Your task to perform on an android device: turn off wifi Image 0: 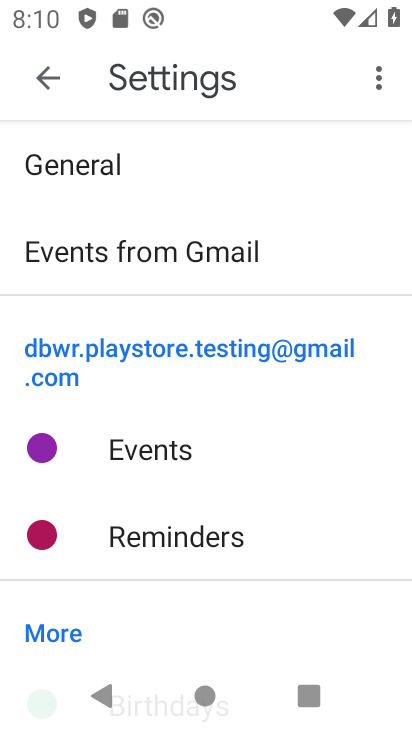
Step 0: press home button
Your task to perform on an android device: turn off wifi Image 1: 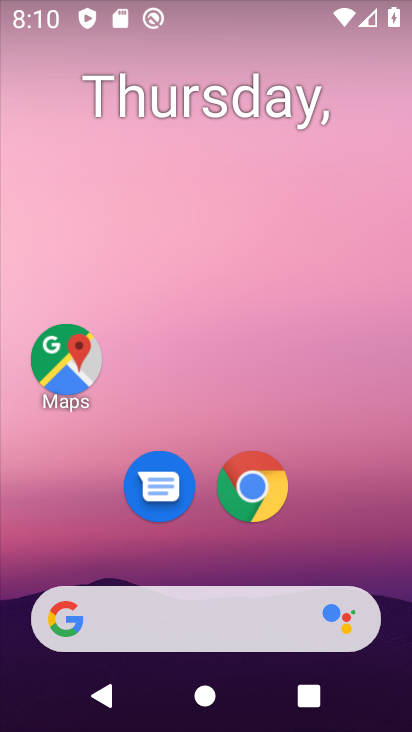
Step 1: drag from (160, 574) to (272, 0)
Your task to perform on an android device: turn off wifi Image 2: 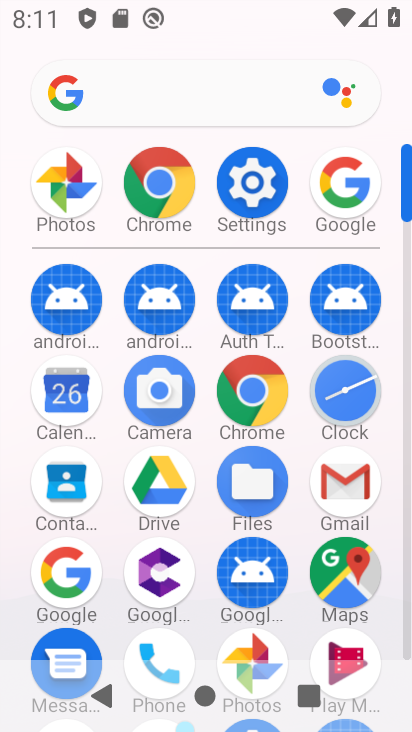
Step 2: click (260, 199)
Your task to perform on an android device: turn off wifi Image 3: 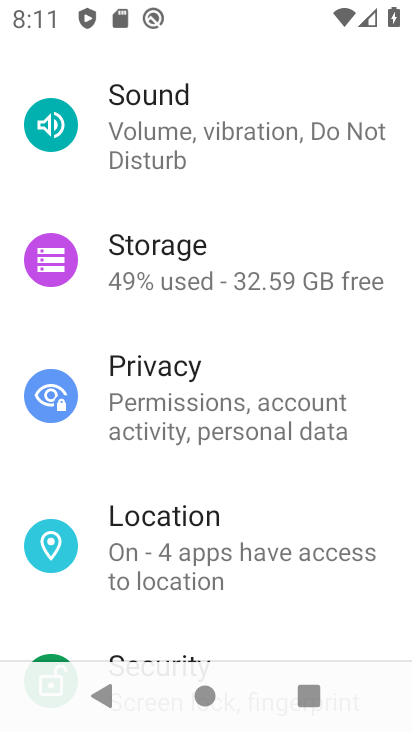
Step 3: drag from (247, 204) to (148, 716)
Your task to perform on an android device: turn off wifi Image 4: 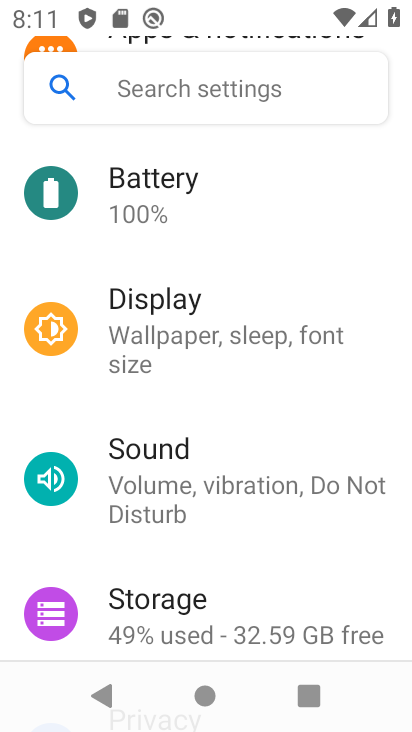
Step 4: drag from (148, 324) to (148, 729)
Your task to perform on an android device: turn off wifi Image 5: 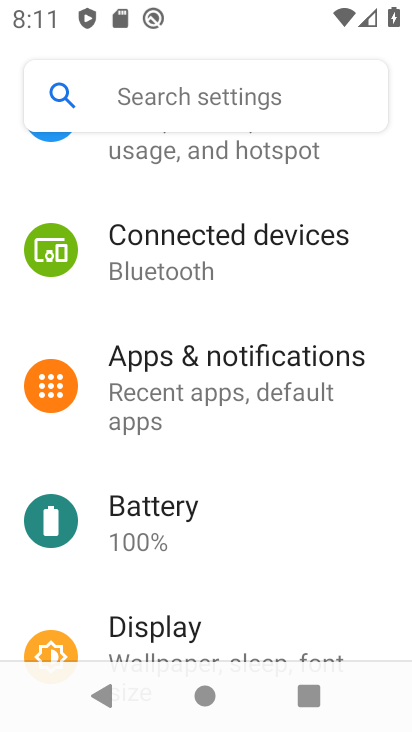
Step 5: drag from (189, 313) to (137, 730)
Your task to perform on an android device: turn off wifi Image 6: 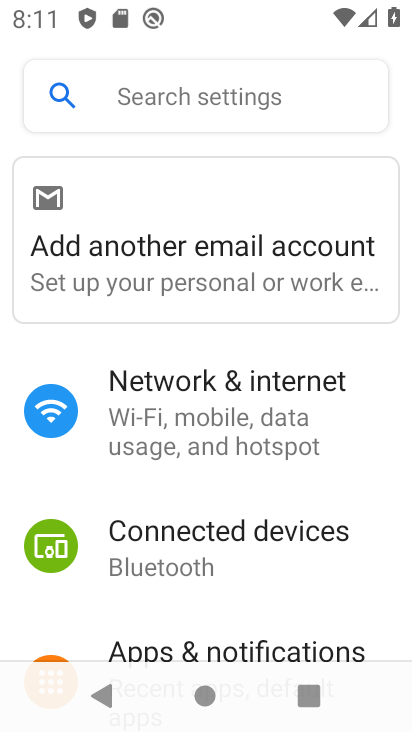
Step 6: click (297, 378)
Your task to perform on an android device: turn off wifi Image 7: 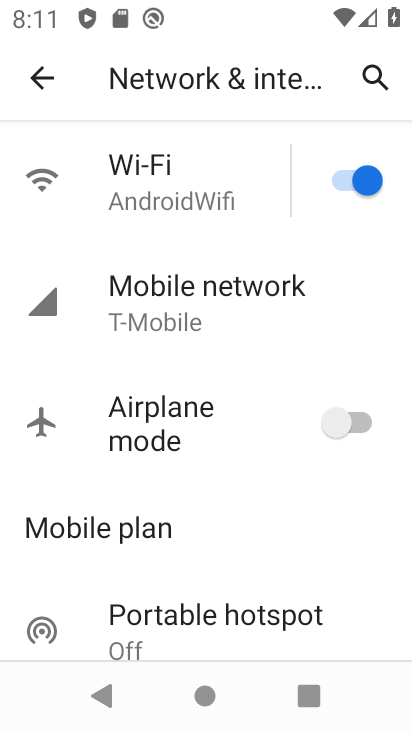
Step 7: click (334, 183)
Your task to perform on an android device: turn off wifi Image 8: 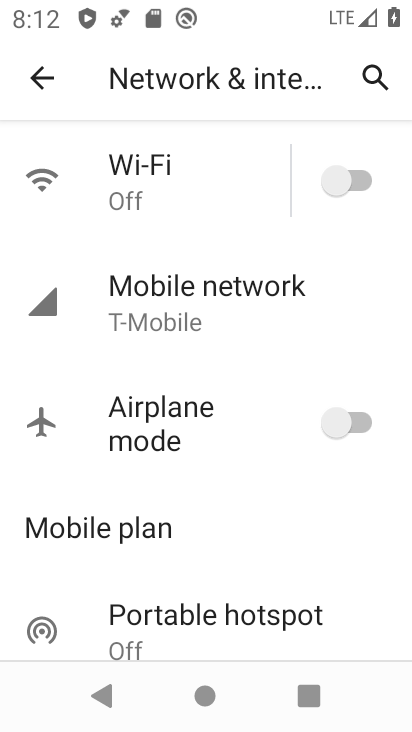
Step 8: task complete